Your task to perform on an android device: Clear the shopping cart on newegg.com. Add logitech g903 to the cart on newegg.com Image 0: 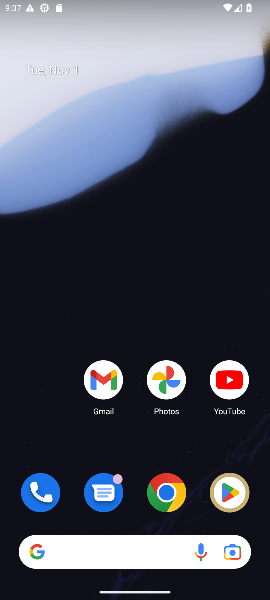
Step 0: click (157, 498)
Your task to perform on an android device: Clear the shopping cart on newegg.com. Add logitech g903 to the cart on newegg.com Image 1: 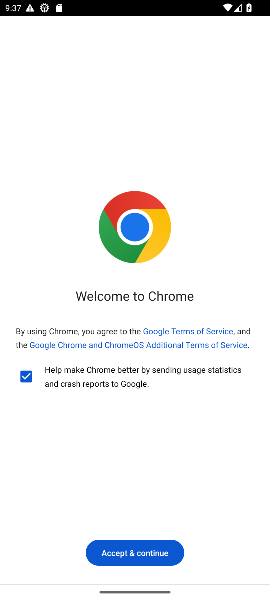
Step 1: click (166, 559)
Your task to perform on an android device: Clear the shopping cart on newegg.com. Add logitech g903 to the cart on newegg.com Image 2: 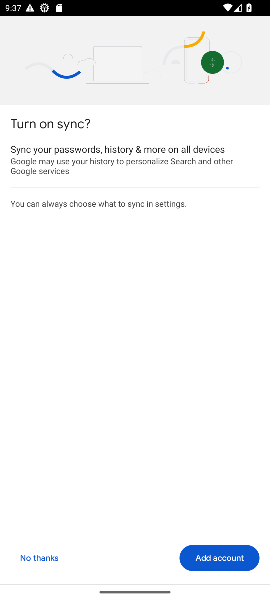
Step 2: click (31, 556)
Your task to perform on an android device: Clear the shopping cart on newegg.com. Add logitech g903 to the cart on newegg.com Image 3: 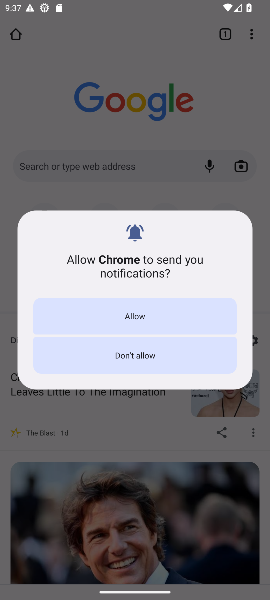
Step 3: click (137, 356)
Your task to perform on an android device: Clear the shopping cart on newegg.com. Add logitech g903 to the cart on newegg.com Image 4: 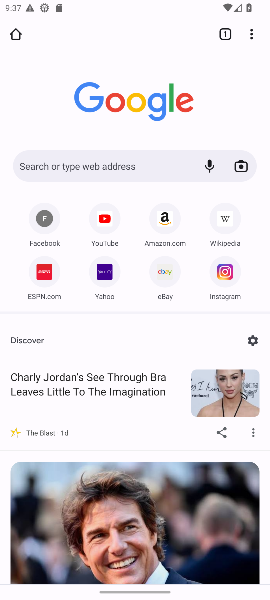
Step 4: click (102, 171)
Your task to perform on an android device: Clear the shopping cart on newegg.com. Add logitech g903 to the cart on newegg.com Image 5: 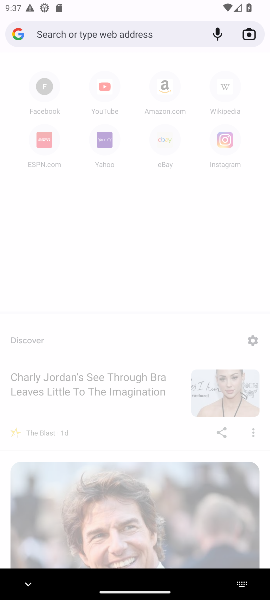
Step 5: type "newegg.com"
Your task to perform on an android device: Clear the shopping cart on newegg.com. Add logitech g903 to the cart on newegg.com Image 6: 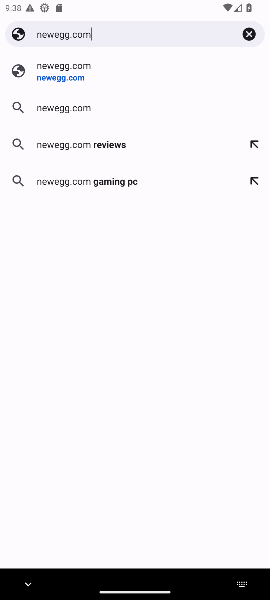
Step 6: click (47, 71)
Your task to perform on an android device: Clear the shopping cart on newegg.com. Add logitech g903 to the cart on newegg.com Image 7: 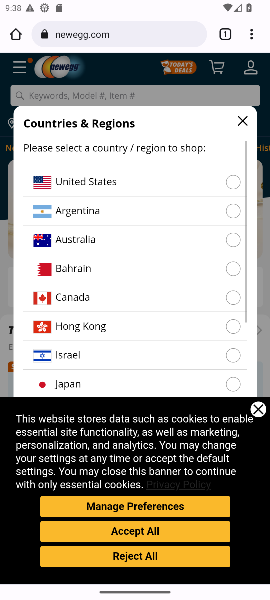
Step 7: click (232, 179)
Your task to perform on an android device: Clear the shopping cart on newegg.com. Add logitech g903 to the cart on newegg.com Image 8: 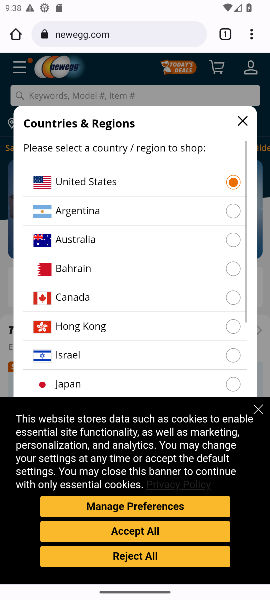
Step 8: click (257, 411)
Your task to perform on an android device: Clear the shopping cart on newegg.com. Add logitech g903 to the cart on newegg.com Image 9: 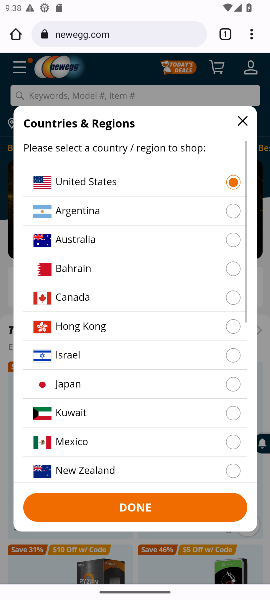
Step 9: drag from (113, 429) to (165, 198)
Your task to perform on an android device: Clear the shopping cart on newegg.com. Add logitech g903 to the cart on newegg.com Image 10: 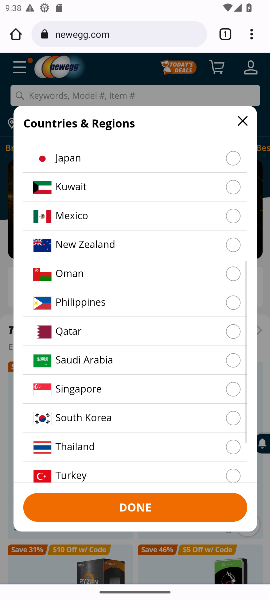
Step 10: drag from (166, 402) to (183, 209)
Your task to perform on an android device: Clear the shopping cart on newegg.com. Add logitech g903 to the cart on newegg.com Image 11: 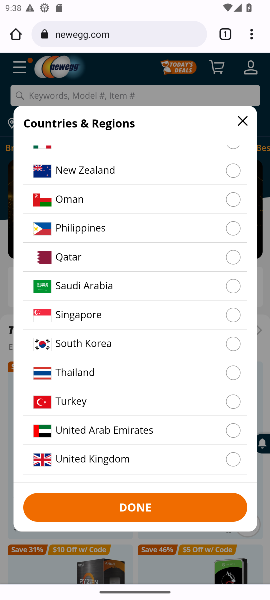
Step 11: drag from (157, 414) to (184, 239)
Your task to perform on an android device: Clear the shopping cart on newegg.com. Add logitech g903 to the cart on newegg.com Image 12: 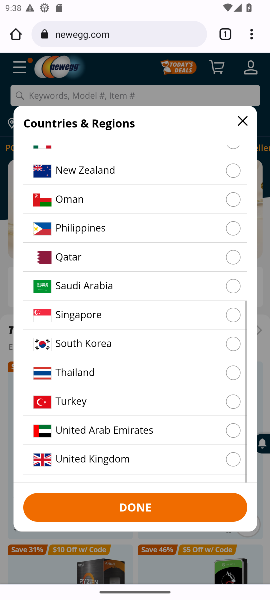
Step 12: drag from (185, 237) to (139, 503)
Your task to perform on an android device: Clear the shopping cart on newegg.com. Add logitech g903 to the cart on newegg.com Image 13: 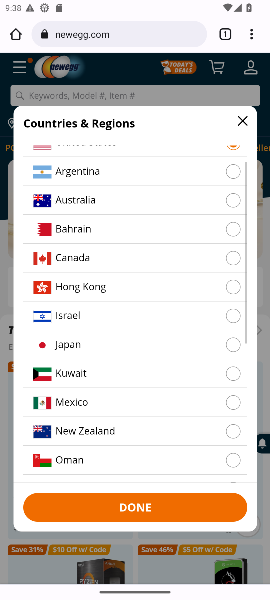
Step 13: drag from (142, 224) to (80, 494)
Your task to perform on an android device: Clear the shopping cart on newegg.com. Add logitech g903 to the cart on newegg.com Image 14: 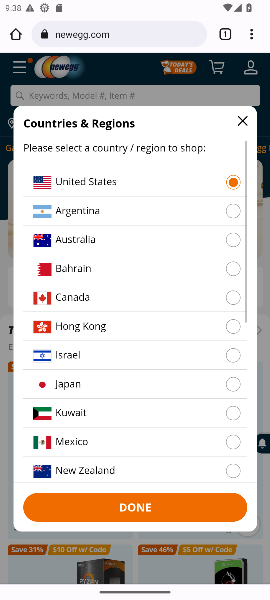
Step 14: click (133, 516)
Your task to perform on an android device: Clear the shopping cart on newegg.com. Add logitech g903 to the cart on newegg.com Image 15: 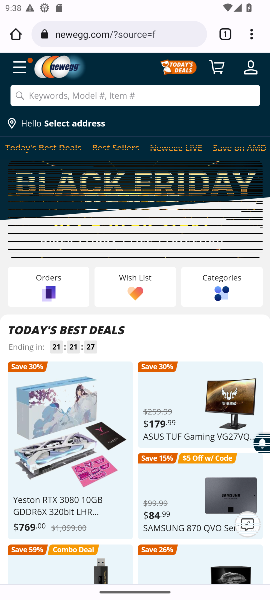
Step 15: click (75, 96)
Your task to perform on an android device: Clear the shopping cart on newegg.com. Add logitech g903 to the cart on newegg.com Image 16: 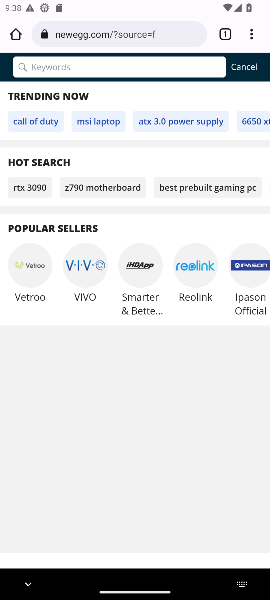
Step 16: type "logitech g 903"
Your task to perform on an android device: Clear the shopping cart on newegg.com. Add logitech g903 to the cart on newegg.com Image 17: 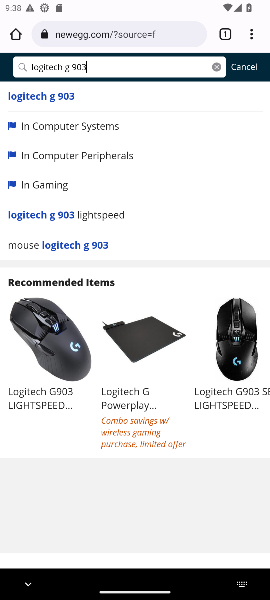
Step 17: click (50, 103)
Your task to perform on an android device: Clear the shopping cart on newegg.com. Add logitech g903 to the cart on newegg.com Image 18: 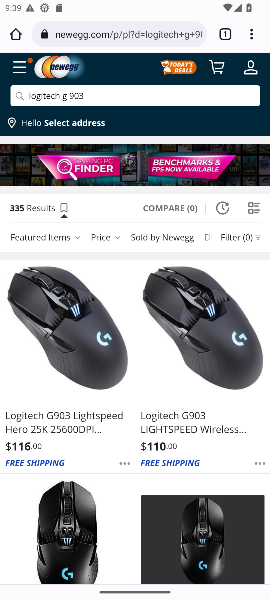
Step 18: drag from (134, 402) to (140, 299)
Your task to perform on an android device: Clear the shopping cart on newegg.com. Add logitech g903 to the cart on newegg.com Image 19: 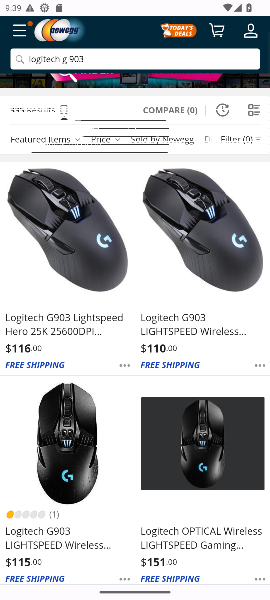
Step 19: click (42, 233)
Your task to perform on an android device: Clear the shopping cart on newegg.com. Add logitech g903 to the cart on newegg.com Image 20: 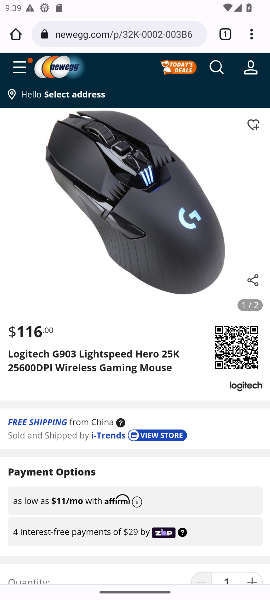
Step 20: drag from (93, 426) to (145, 194)
Your task to perform on an android device: Clear the shopping cart on newegg.com. Add logitech g903 to the cart on newegg.com Image 21: 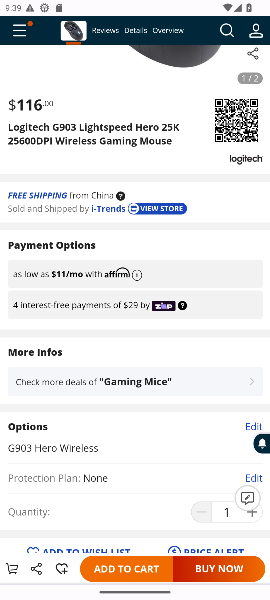
Step 21: click (137, 571)
Your task to perform on an android device: Clear the shopping cart on newegg.com. Add logitech g903 to the cart on newegg.com Image 22: 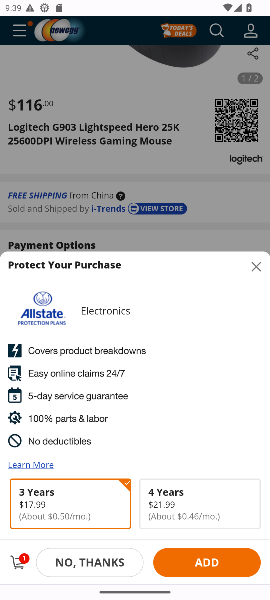
Step 22: click (75, 560)
Your task to perform on an android device: Clear the shopping cart on newegg.com. Add logitech g903 to the cart on newegg.com Image 23: 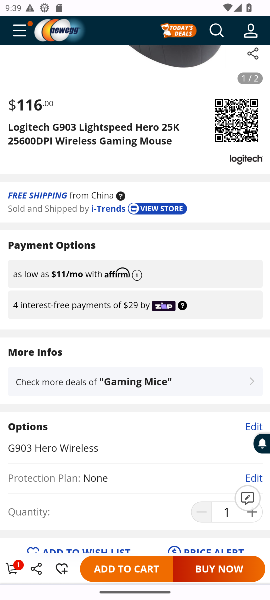
Step 23: click (249, 32)
Your task to perform on an android device: Clear the shopping cart on newegg.com. Add logitech g903 to the cart on newegg.com Image 24: 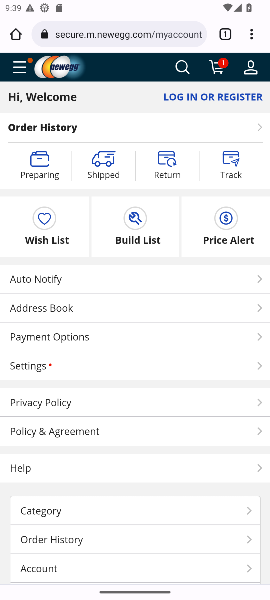
Step 24: click (224, 66)
Your task to perform on an android device: Clear the shopping cart on newegg.com. Add logitech g903 to the cart on newegg.com Image 25: 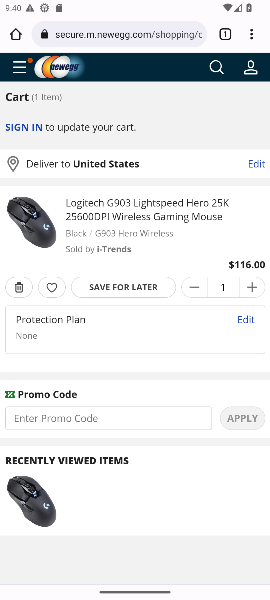
Step 25: task complete